Your task to perform on an android device: check android version Image 0: 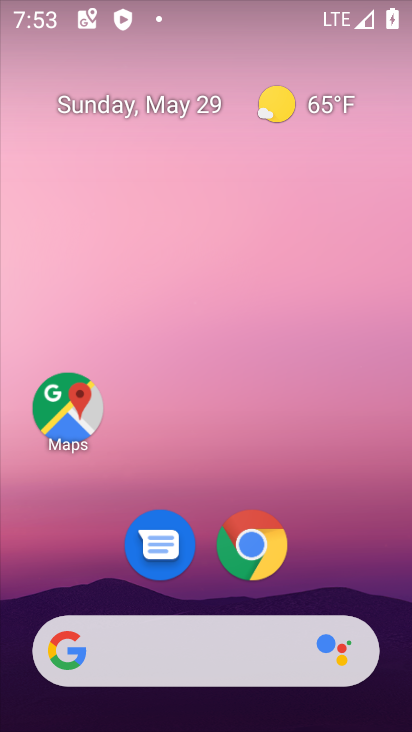
Step 0: drag from (235, 597) to (274, 326)
Your task to perform on an android device: check android version Image 1: 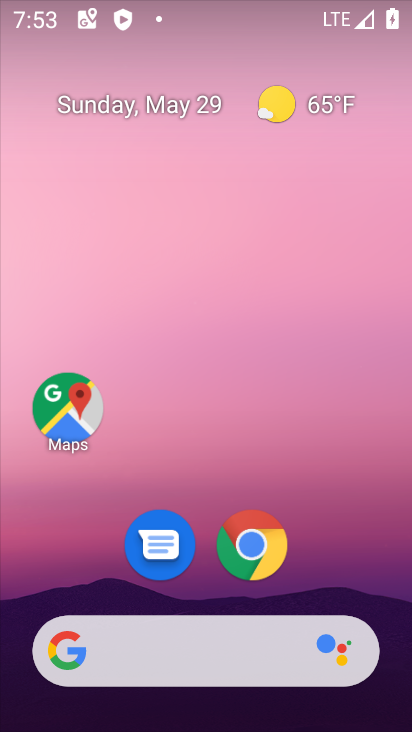
Step 1: drag from (207, 559) to (263, 197)
Your task to perform on an android device: check android version Image 2: 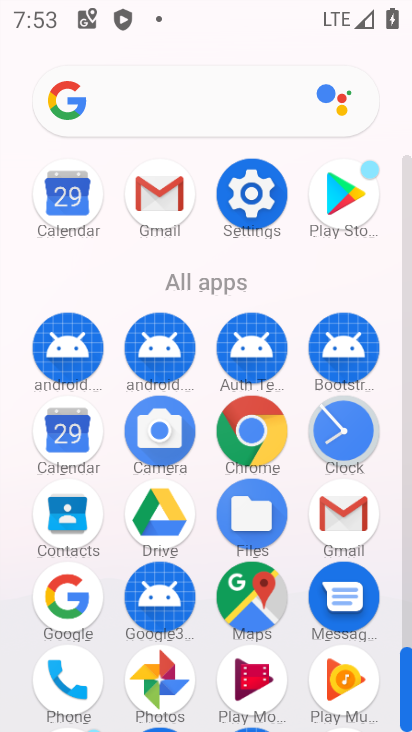
Step 2: click (266, 194)
Your task to perform on an android device: check android version Image 3: 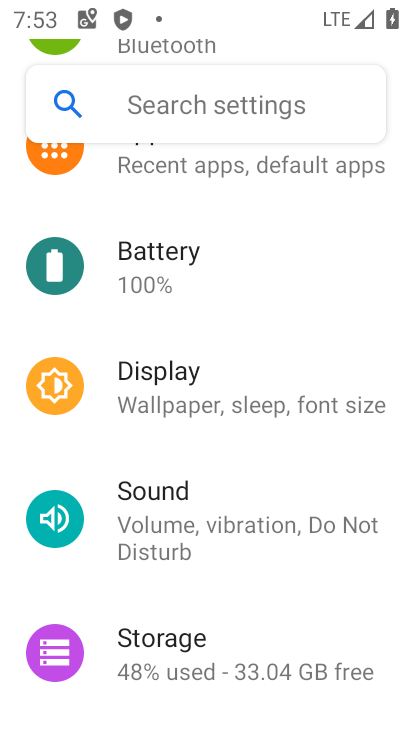
Step 3: drag from (197, 653) to (353, 290)
Your task to perform on an android device: check android version Image 4: 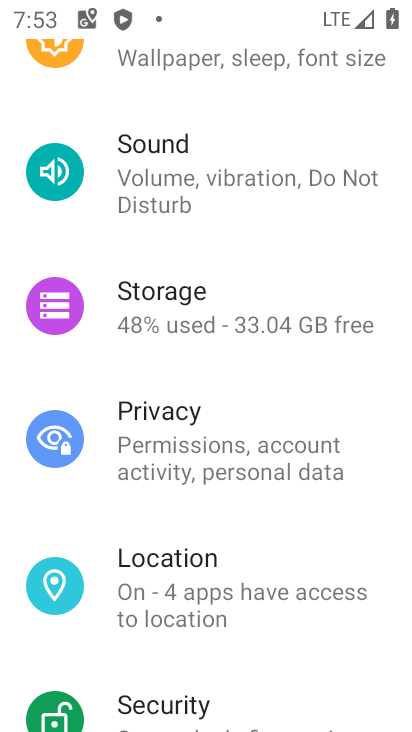
Step 4: drag from (241, 699) to (358, 304)
Your task to perform on an android device: check android version Image 5: 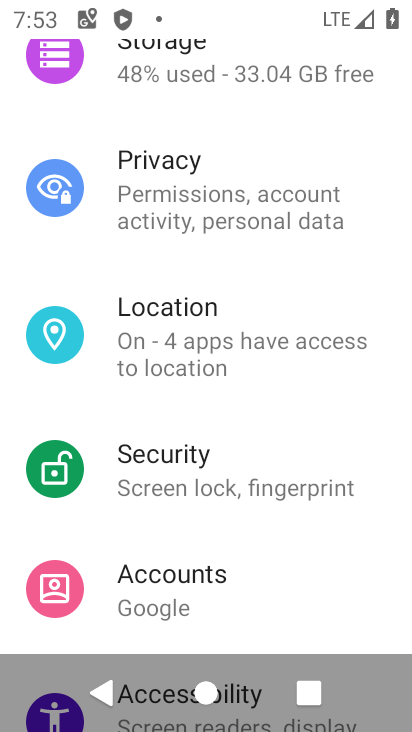
Step 5: drag from (245, 615) to (350, 243)
Your task to perform on an android device: check android version Image 6: 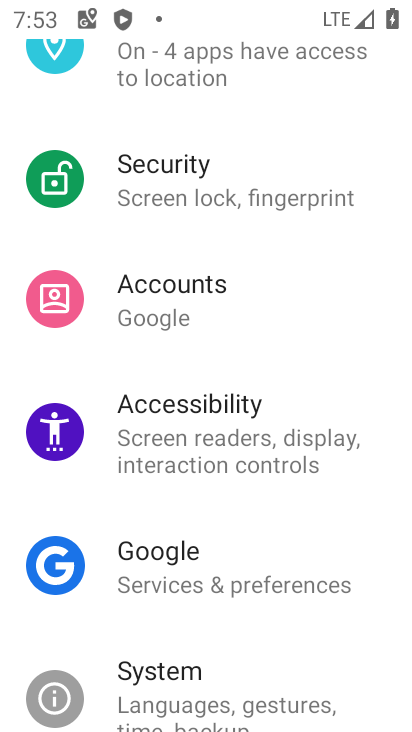
Step 6: drag from (223, 647) to (345, 262)
Your task to perform on an android device: check android version Image 7: 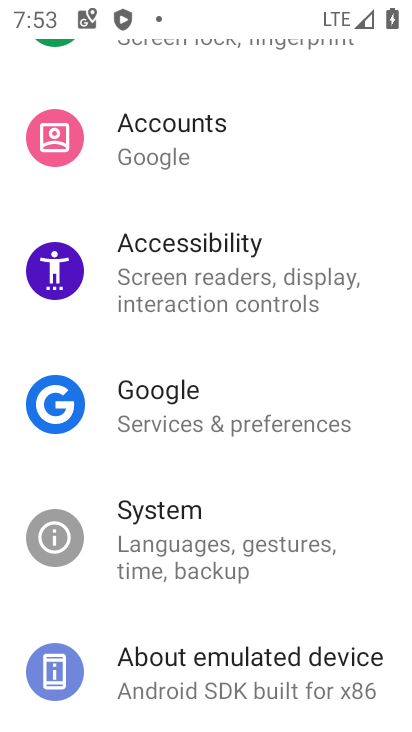
Step 7: click (251, 682)
Your task to perform on an android device: check android version Image 8: 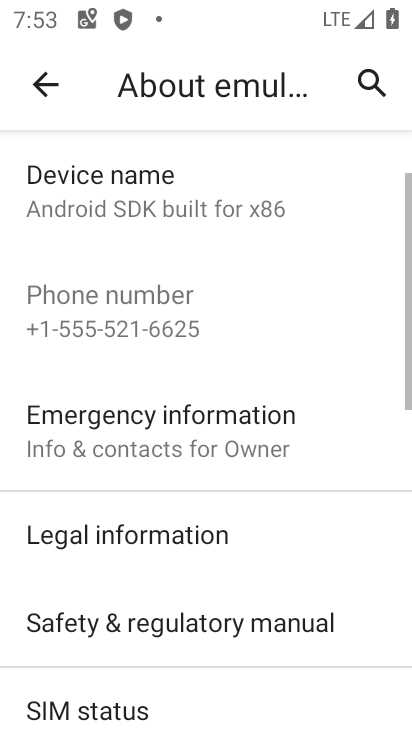
Step 8: drag from (197, 688) to (360, 256)
Your task to perform on an android device: check android version Image 9: 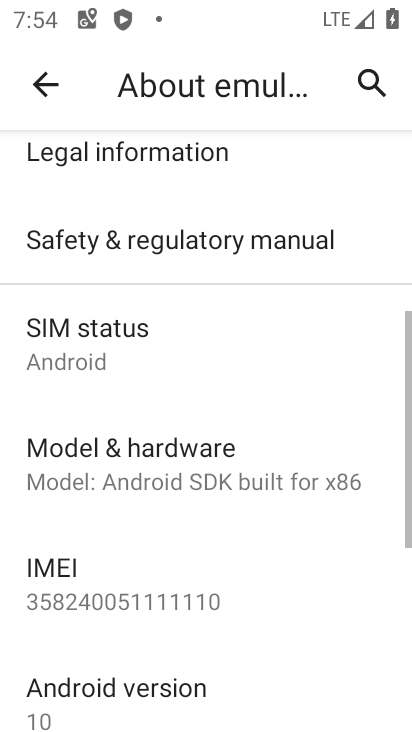
Step 9: click (115, 700)
Your task to perform on an android device: check android version Image 10: 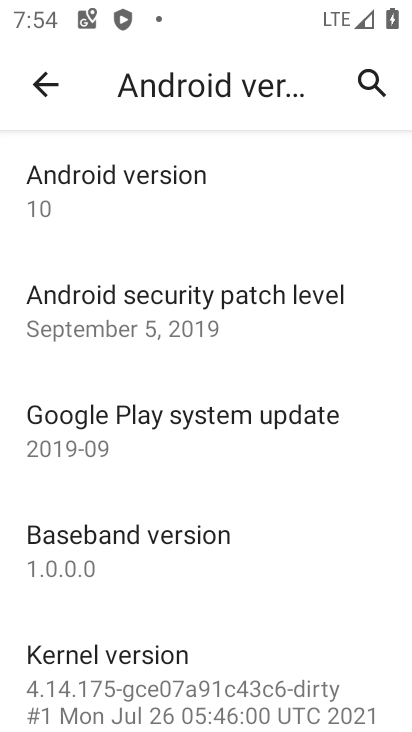
Step 10: click (230, 195)
Your task to perform on an android device: check android version Image 11: 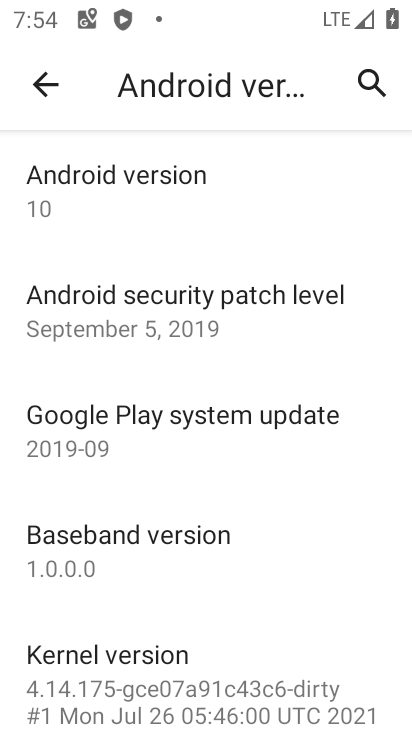
Step 11: task complete